Your task to perform on an android device: change text size in settings app Image 0: 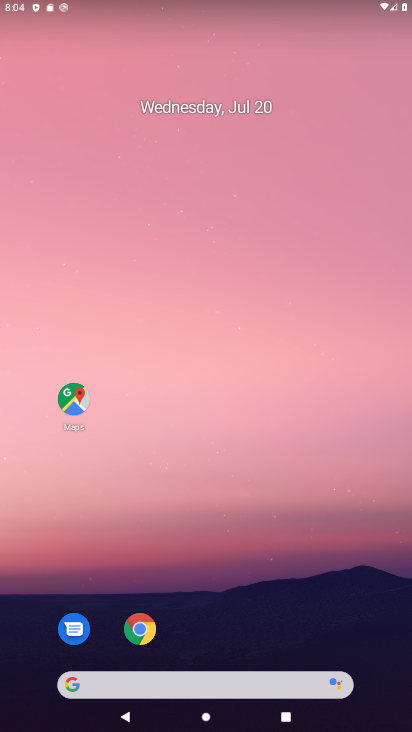
Step 0: drag from (196, 623) to (207, 87)
Your task to perform on an android device: change text size in settings app Image 1: 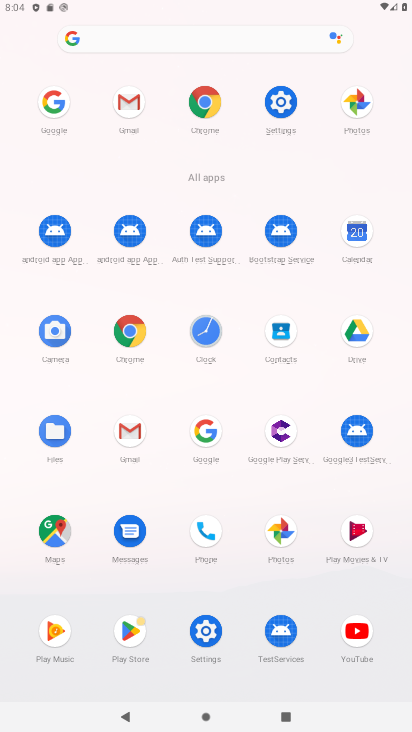
Step 1: click (259, 101)
Your task to perform on an android device: change text size in settings app Image 2: 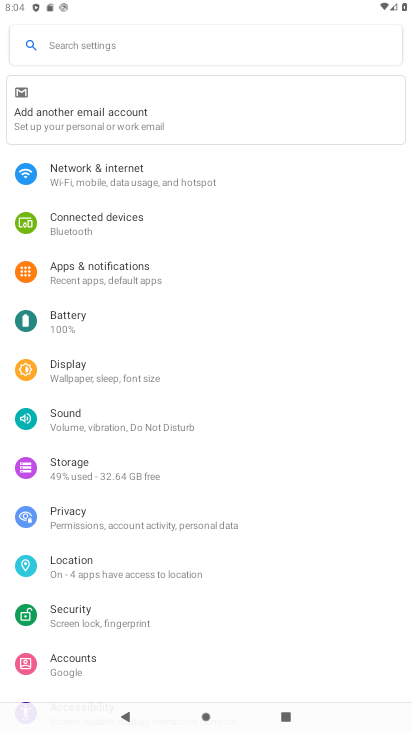
Step 2: click (94, 359)
Your task to perform on an android device: change text size in settings app Image 3: 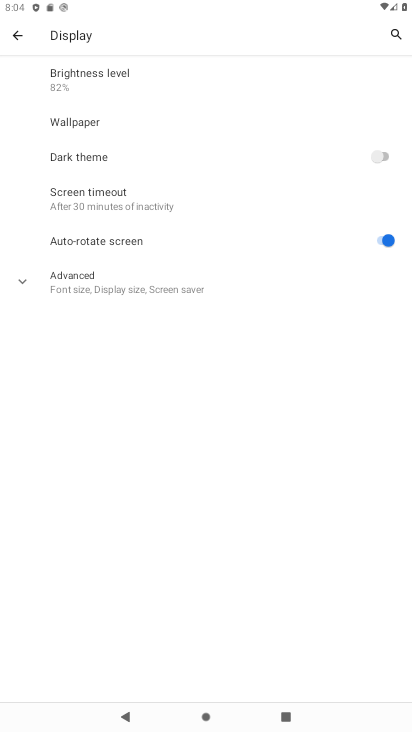
Step 3: click (110, 281)
Your task to perform on an android device: change text size in settings app Image 4: 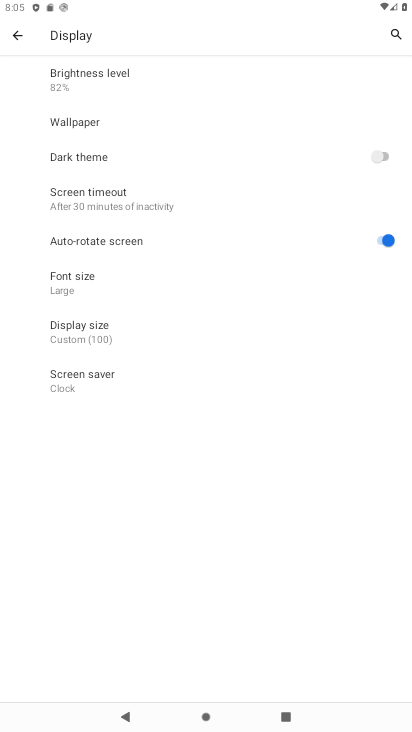
Step 4: click (90, 287)
Your task to perform on an android device: change text size in settings app Image 5: 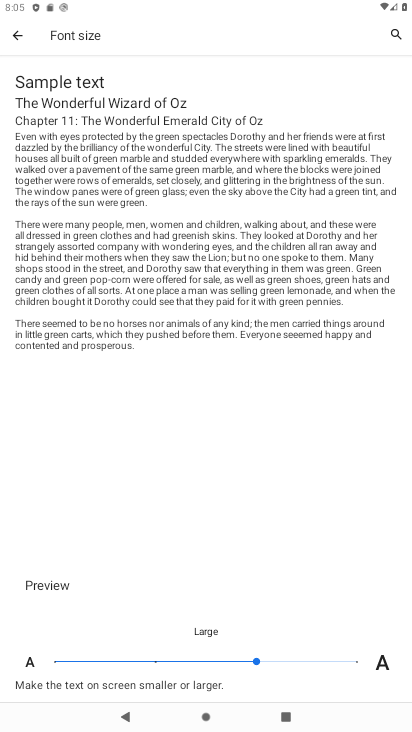
Step 5: click (353, 655)
Your task to perform on an android device: change text size in settings app Image 6: 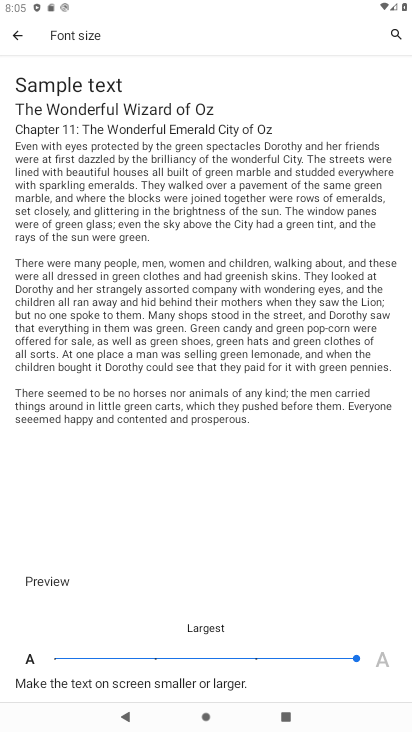
Step 6: task complete